Your task to perform on an android device: turn off location Image 0: 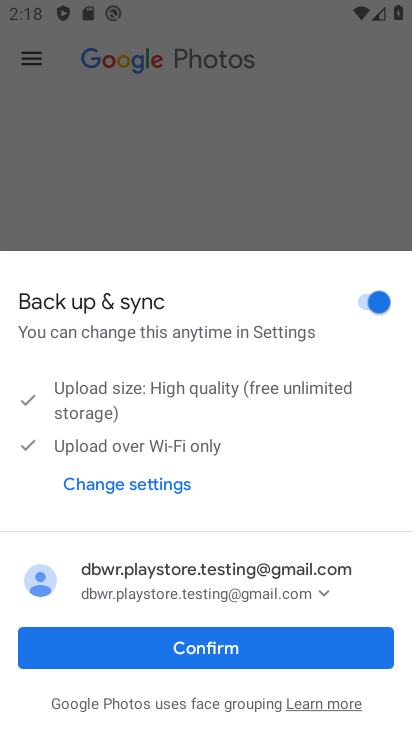
Step 0: press home button
Your task to perform on an android device: turn off location Image 1: 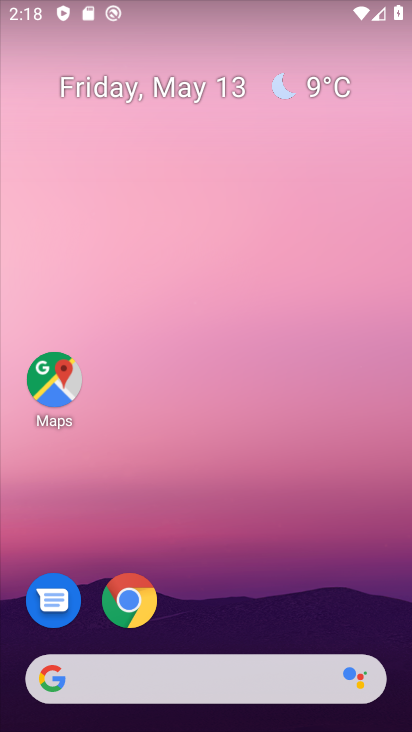
Step 1: drag from (281, 599) to (282, 158)
Your task to perform on an android device: turn off location Image 2: 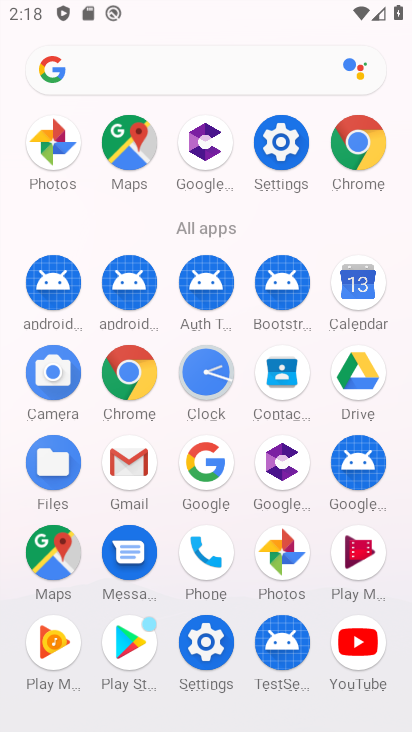
Step 2: click (273, 151)
Your task to perform on an android device: turn off location Image 3: 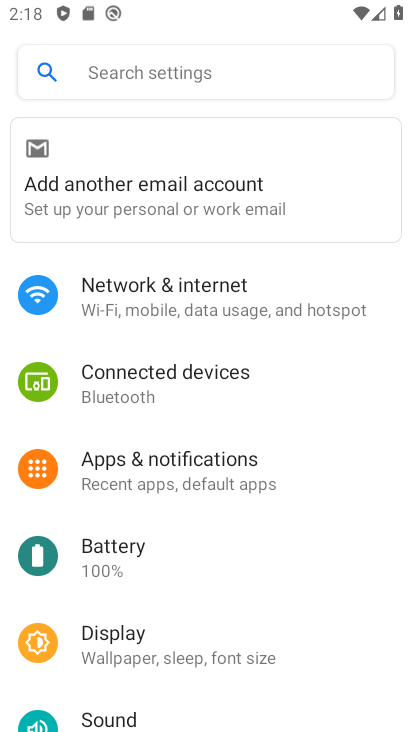
Step 3: drag from (232, 669) to (230, 330)
Your task to perform on an android device: turn off location Image 4: 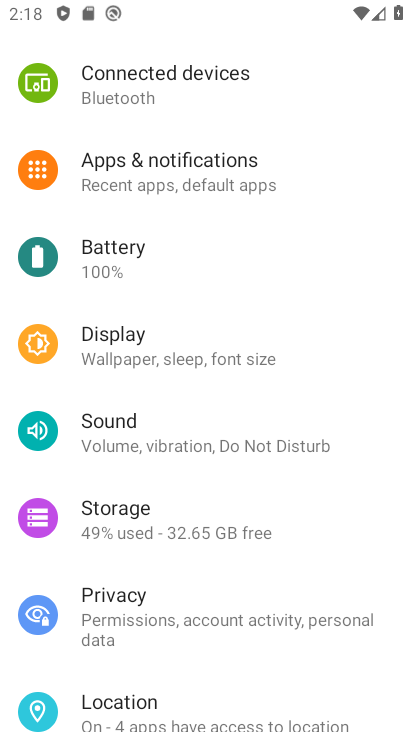
Step 4: click (156, 699)
Your task to perform on an android device: turn off location Image 5: 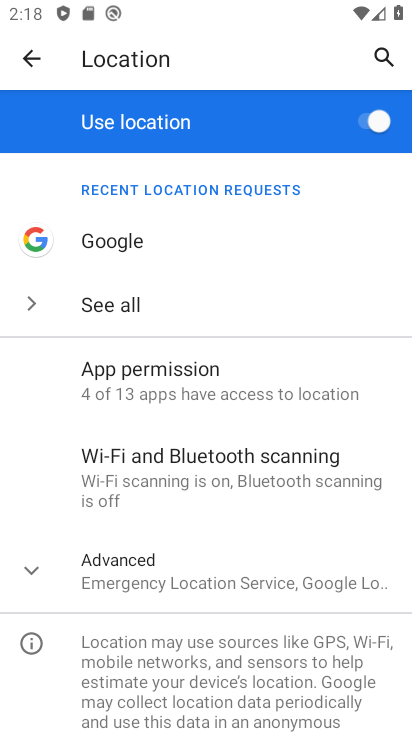
Step 5: click (370, 119)
Your task to perform on an android device: turn off location Image 6: 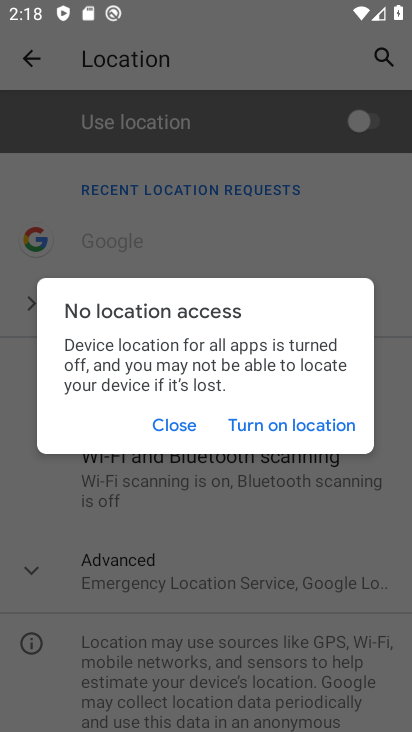
Step 6: click (179, 430)
Your task to perform on an android device: turn off location Image 7: 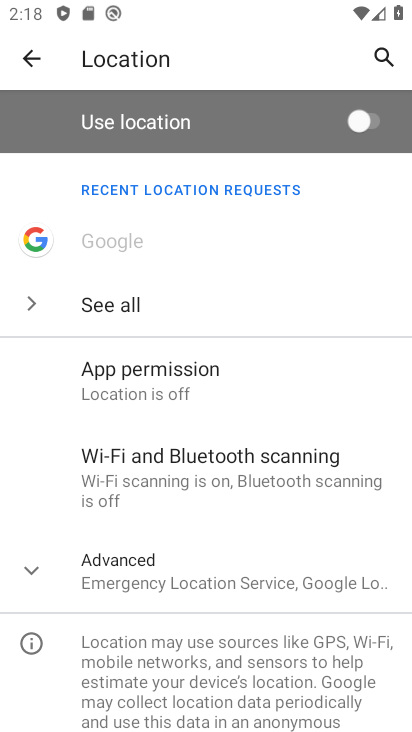
Step 7: task complete